Your task to perform on an android device: Show me the alarms in the clock app Image 0: 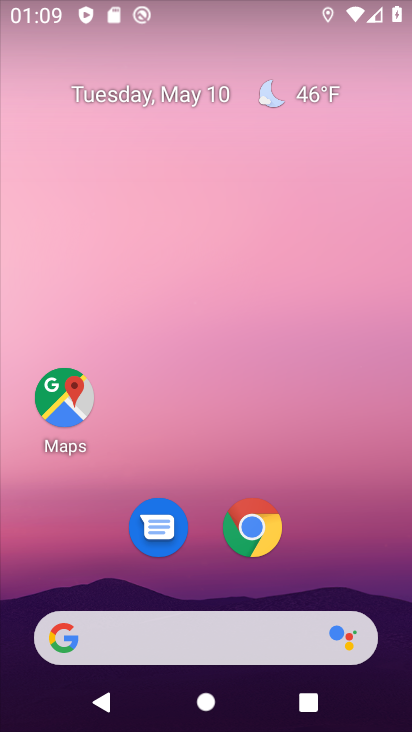
Step 0: drag from (372, 579) to (277, 121)
Your task to perform on an android device: Show me the alarms in the clock app Image 1: 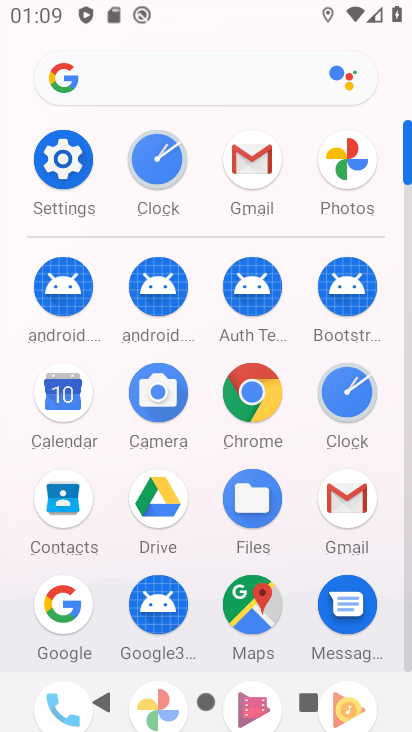
Step 1: click (342, 387)
Your task to perform on an android device: Show me the alarms in the clock app Image 2: 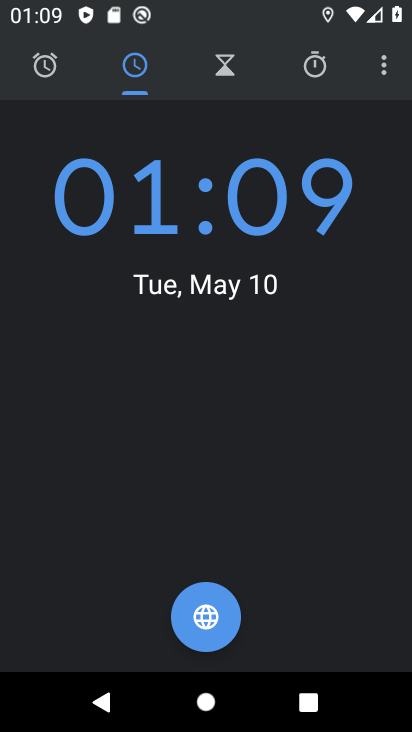
Step 2: click (51, 70)
Your task to perform on an android device: Show me the alarms in the clock app Image 3: 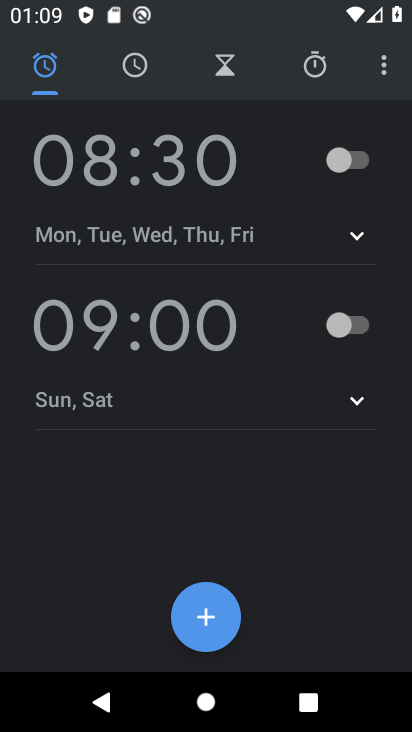
Step 3: task complete